Your task to perform on an android device: turn on airplane mode Image 0: 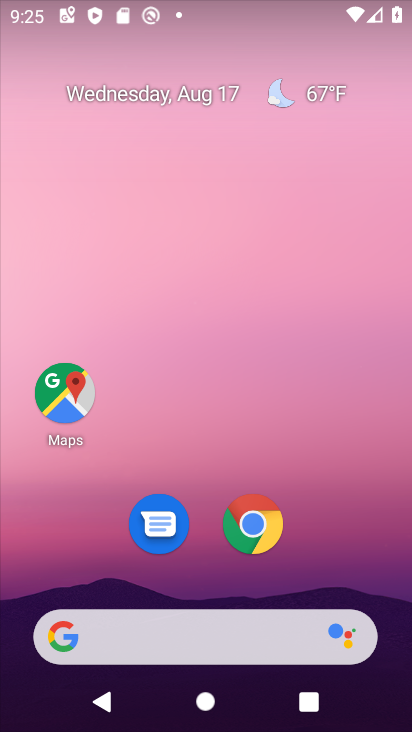
Step 0: drag from (329, 538) to (348, 0)
Your task to perform on an android device: turn on airplane mode Image 1: 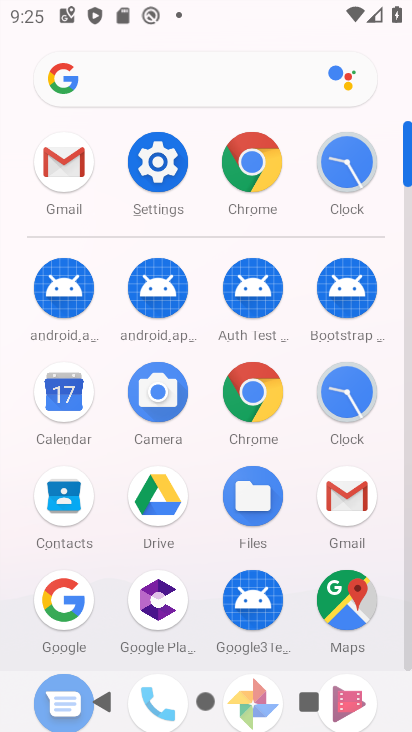
Step 1: click (158, 157)
Your task to perform on an android device: turn on airplane mode Image 2: 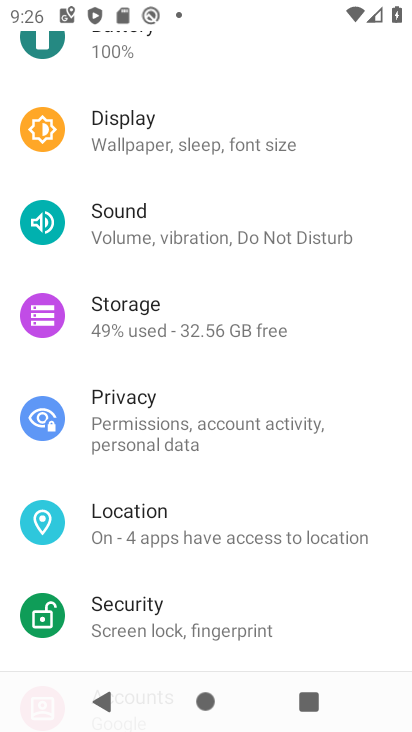
Step 2: drag from (266, 236) to (266, 621)
Your task to perform on an android device: turn on airplane mode Image 3: 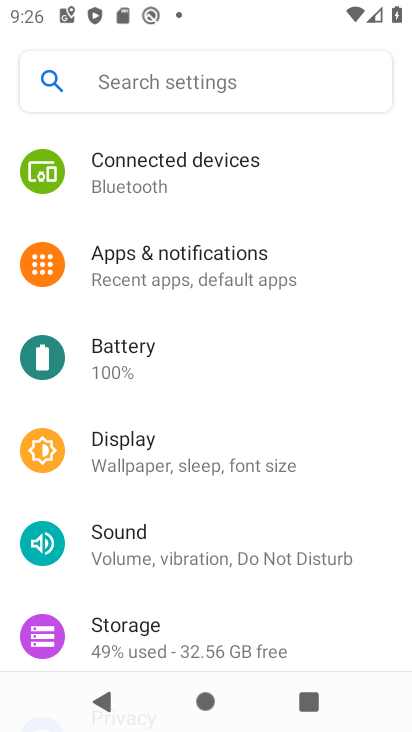
Step 3: drag from (250, 249) to (245, 644)
Your task to perform on an android device: turn on airplane mode Image 4: 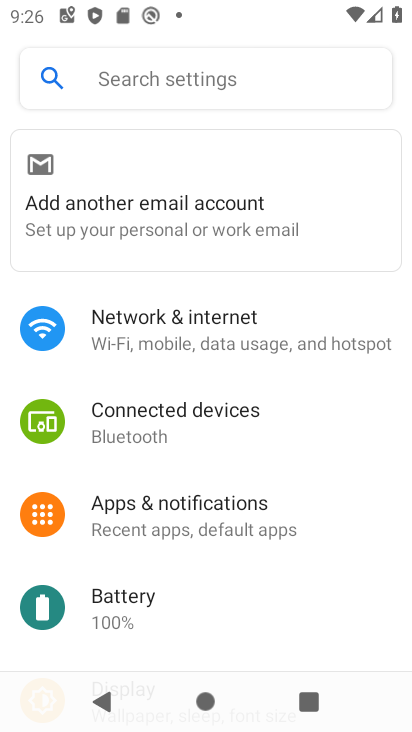
Step 4: click (267, 337)
Your task to perform on an android device: turn on airplane mode Image 5: 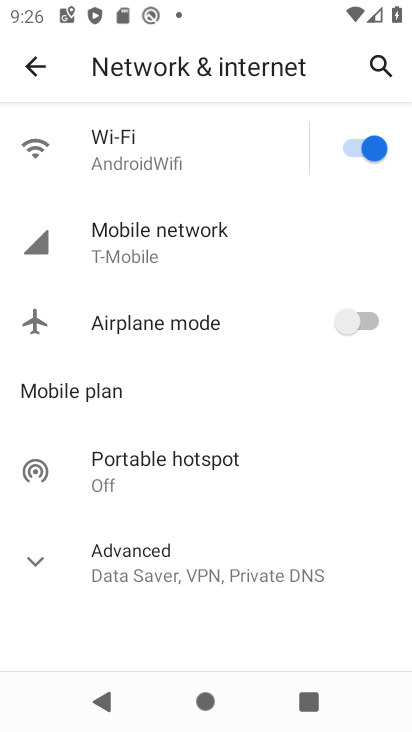
Step 5: click (360, 311)
Your task to perform on an android device: turn on airplane mode Image 6: 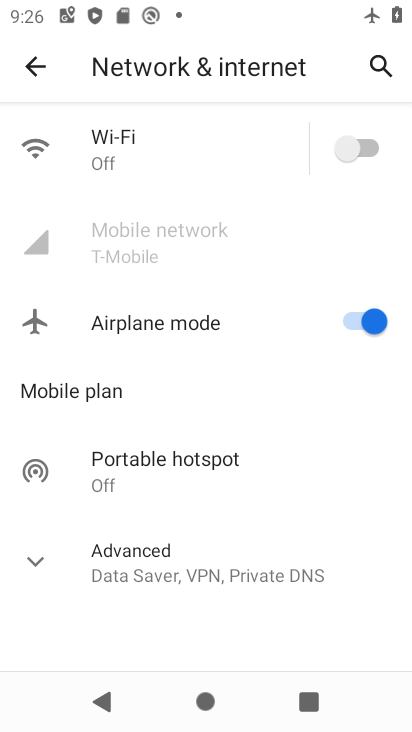
Step 6: task complete